Your task to perform on an android device: change the clock display to analog Image 0: 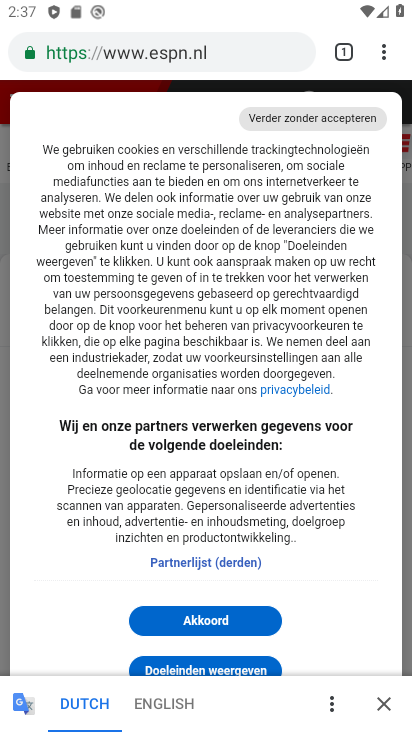
Step 0: click (382, 702)
Your task to perform on an android device: change the clock display to analog Image 1: 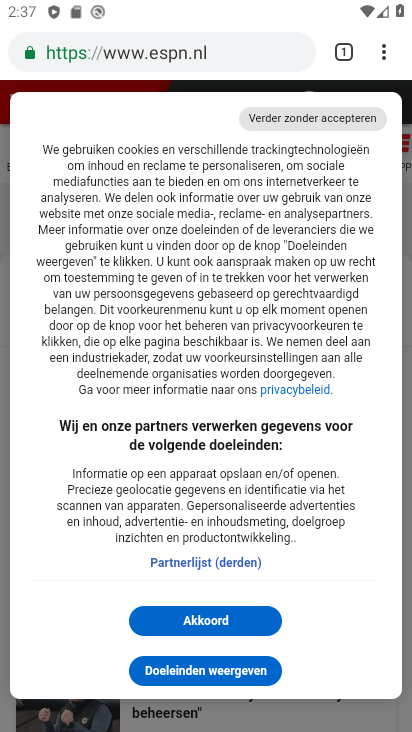
Step 1: press home button
Your task to perform on an android device: change the clock display to analog Image 2: 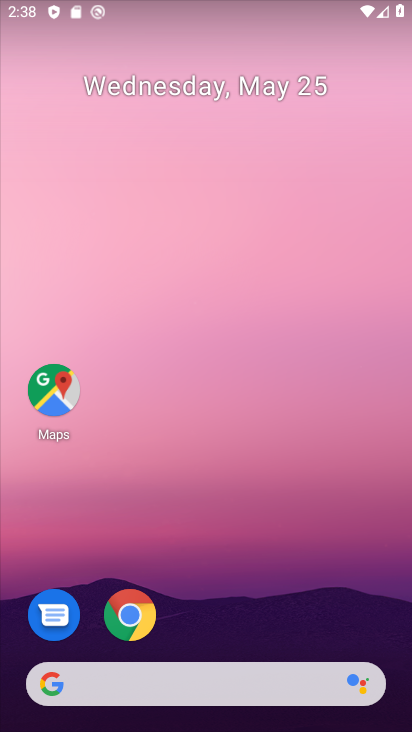
Step 2: drag from (218, 582) to (162, 12)
Your task to perform on an android device: change the clock display to analog Image 3: 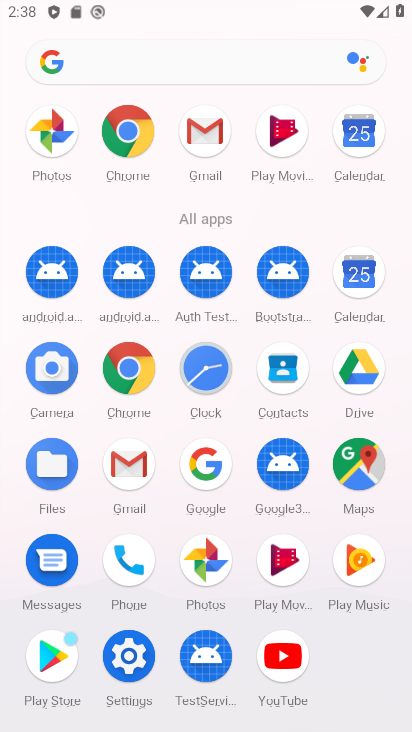
Step 3: click (183, 354)
Your task to perform on an android device: change the clock display to analog Image 4: 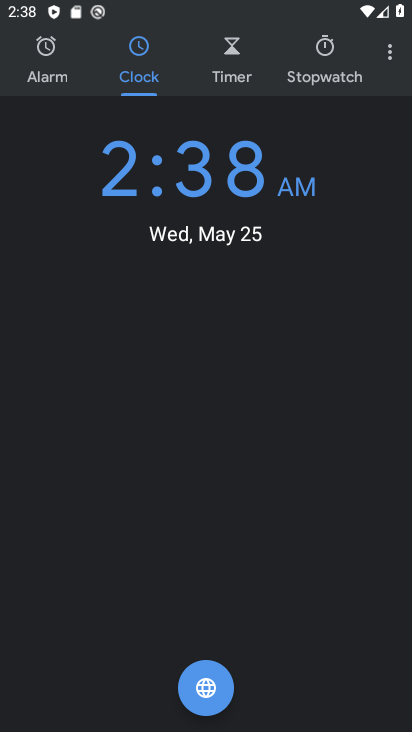
Step 4: click (389, 56)
Your task to perform on an android device: change the clock display to analog Image 5: 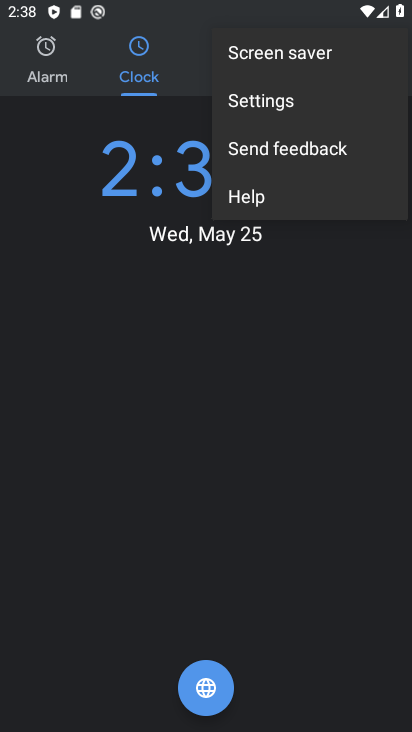
Step 5: click (281, 112)
Your task to perform on an android device: change the clock display to analog Image 6: 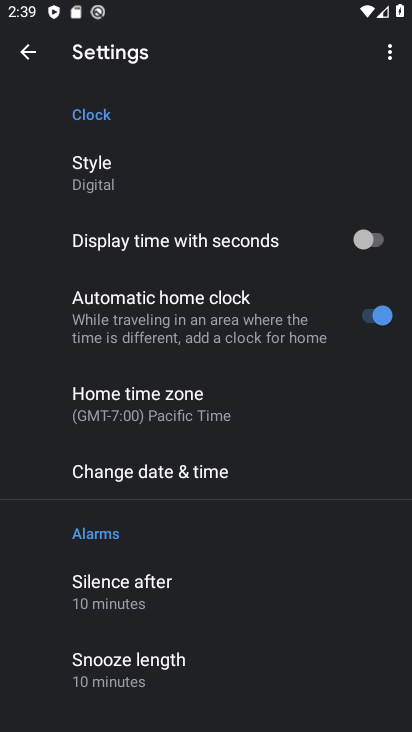
Step 6: click (229, 175)
Your task to perform on an android device: change the clock display to analog Image 7: 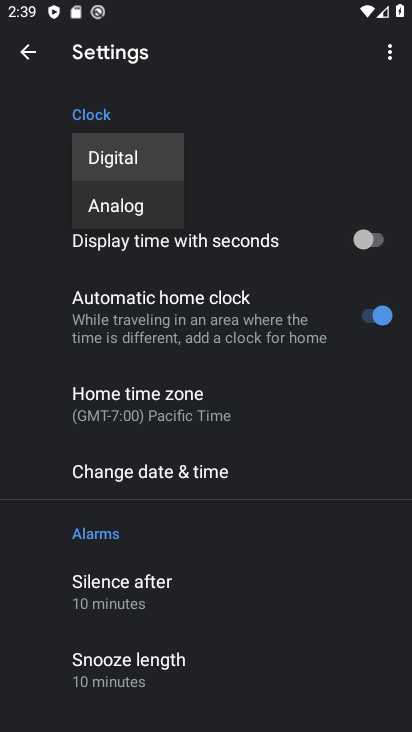
Step 7: click (126, 217)
Your task to perform on an android device: change the clock display to analog Image 8: 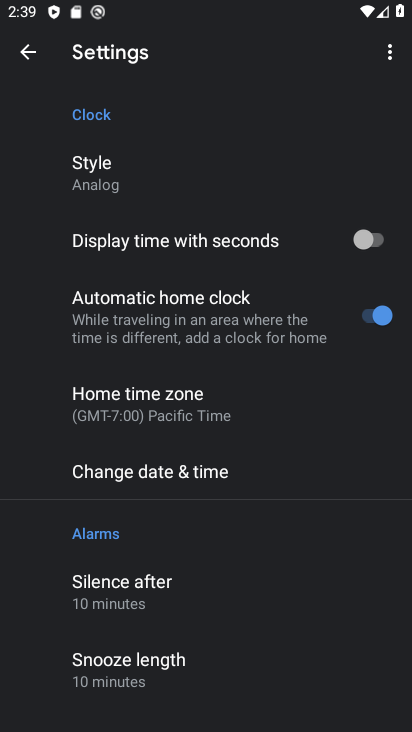
Step 8: task complete